Your task to perform on an android device: open sync settings in chrome Image 0: 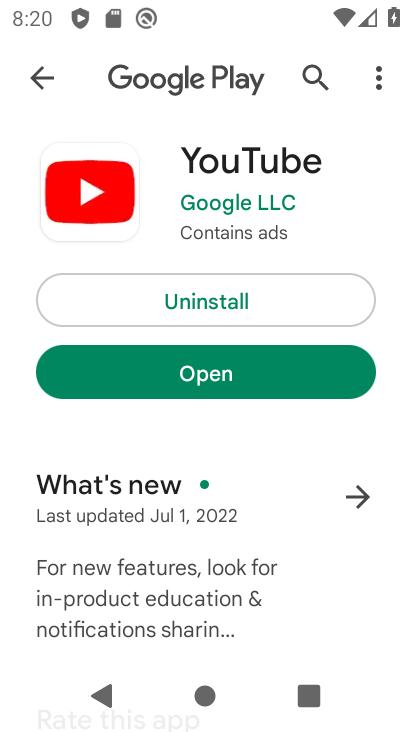
Step 0: press back button
Your task to perform on an android device: open sync settings in chrome Image 1: 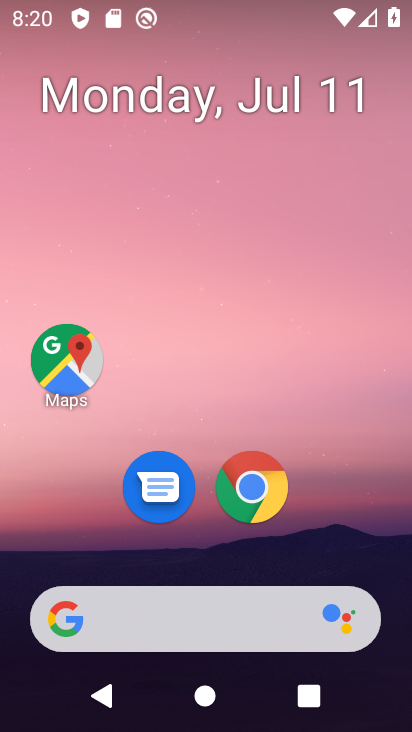
Step 1: click (248, 492)
Your task to perform on an android device: open sync settings in chrome Image 2: 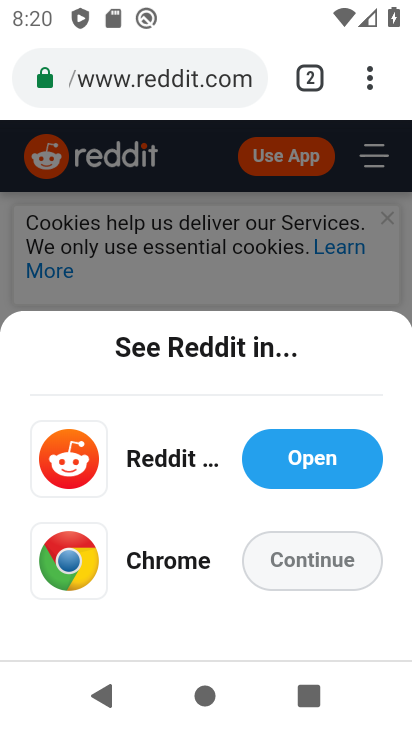
Step 2: click (243, 266)
Your task to perform on an android device: open sync settings in chrome Image 3: 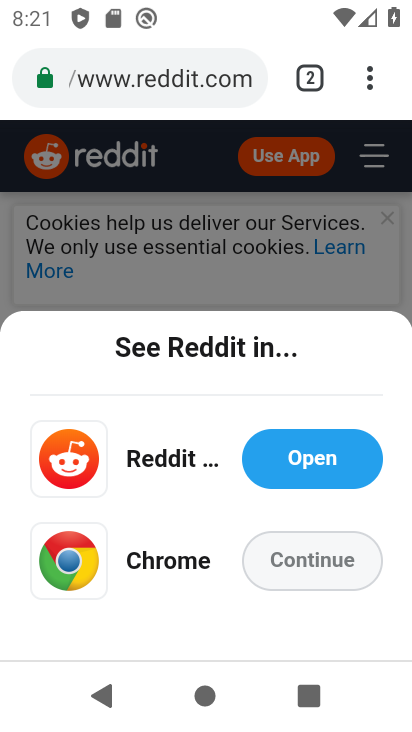
Step 3: drag from (373, 76) to (86, 543)
Your task to perform on an android device: open sync settings in chrome Image 4: 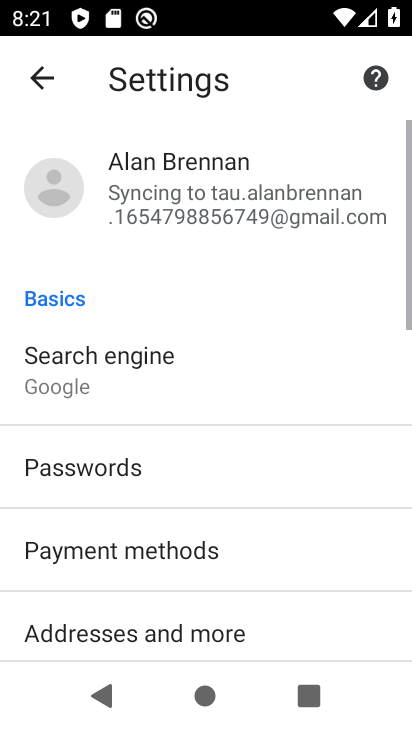
Step 4: click (238, 198)
Your task to perform on an android device: open sync settings in chrome Image 5: 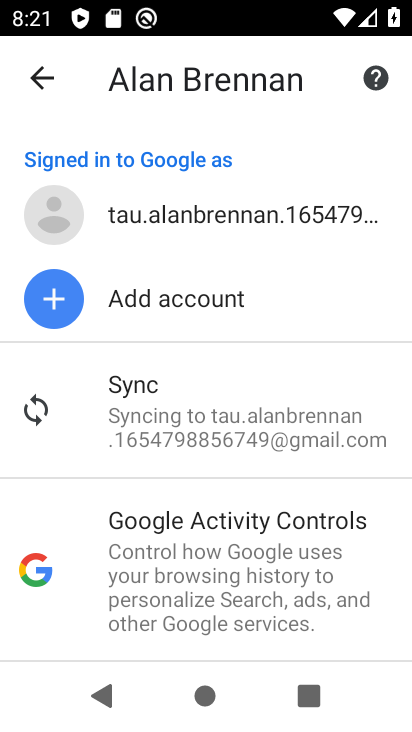
Step 5: task complete